Your task to perform on an android device: open device folders in google photos Image 0: 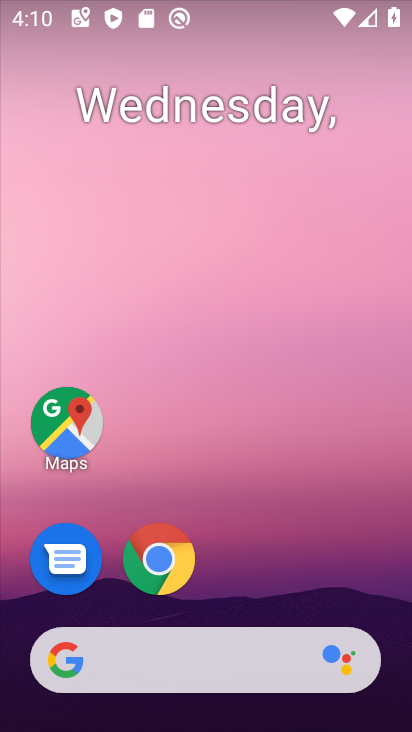
Step 0: drag from (272, 587) to (335, 5)
Your task to perform on an android device: open device folders in google photos Image 1: 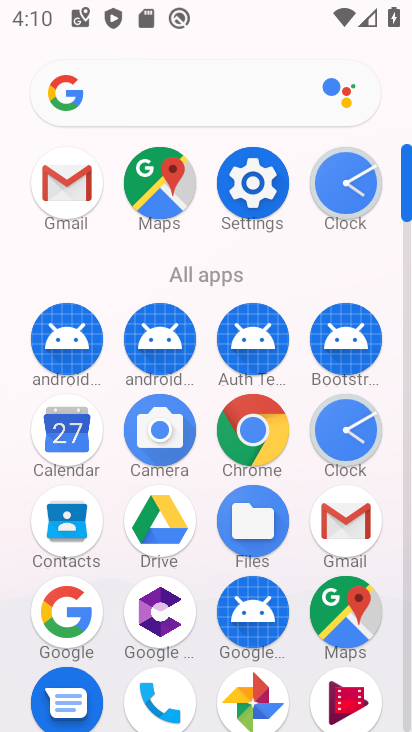
Step 1: click (244, 690)
Your task to perform on an android device: open device folders in google photos Image 2: 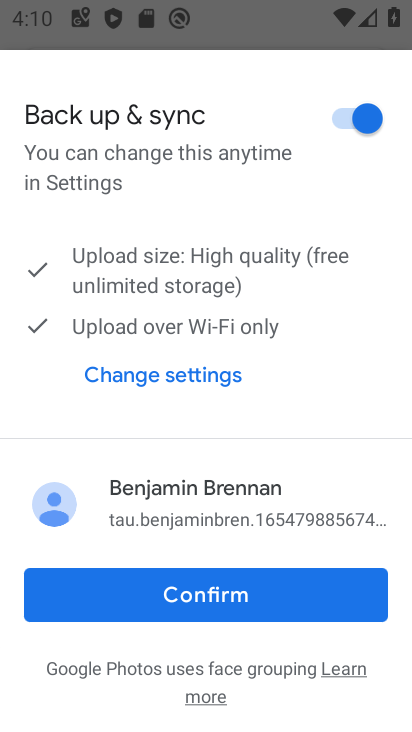
Step 2: click (284, 595)
Your task to perform on an android device: open device folders in google photos Image 3: 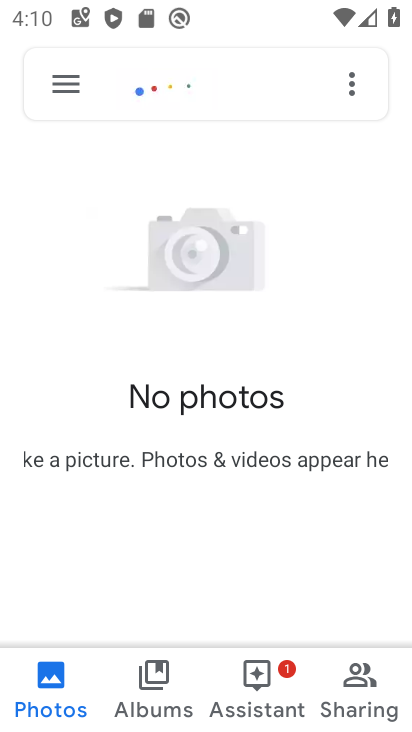
Step 3: click (67, 85)
Your task to perform on an android device: open device folders in google photos Image 4: 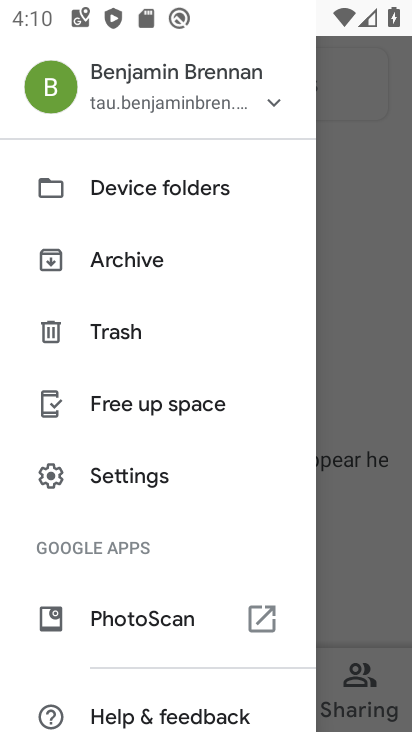
Step 4: click (137, 192)
Your task to perform on an android device: open device folders in google photos Image 5: 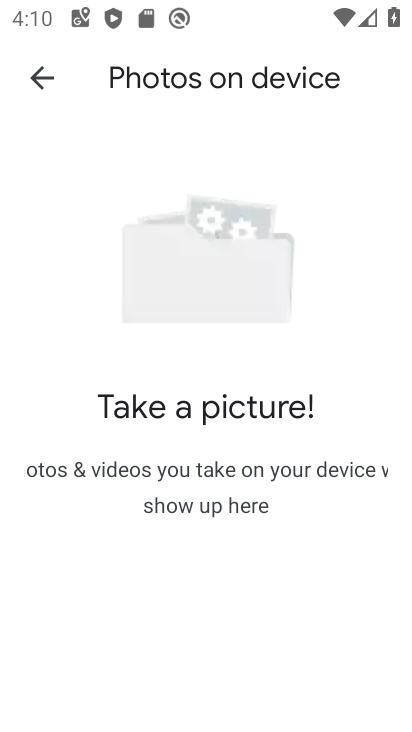
Step 5: task complete